Your task to perform on an android device: open app "Life360: Find Family & Friends" (install if not already installed) Image 0: 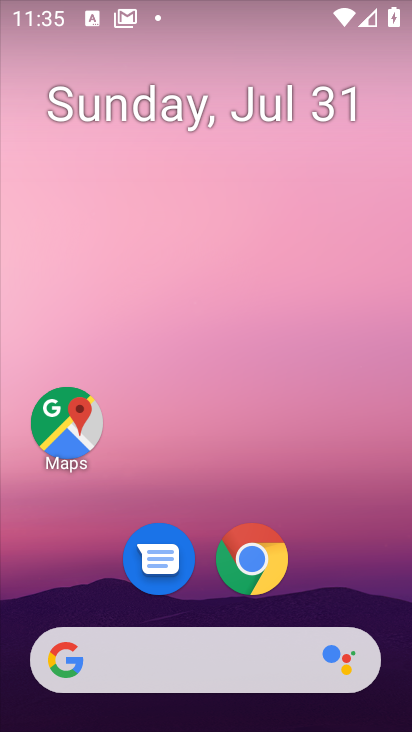
Step 0: drag from (67, 575) to (210, 4)
Your task to perform on an android device: open app "Life360: Find Family & Friends" (install if not already installed) Image 1: 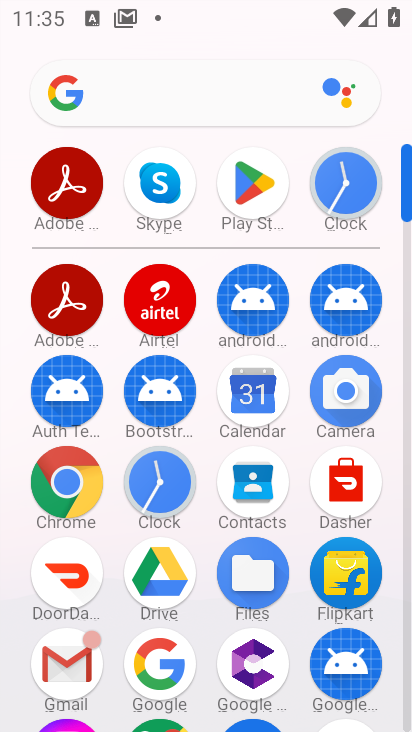
Step 1: click (253, 197)
Your task to perform on an android device: open app "Life360: Find Family & Friends" (install if not already installed) Image 2: 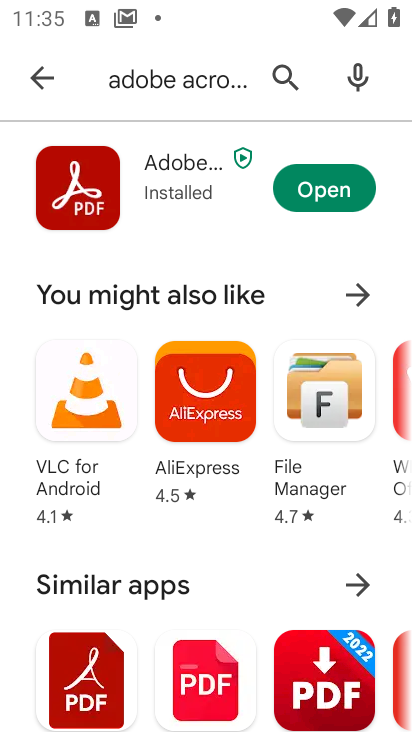
Step 2: click (270, 84)
Your task to perform on an android device: open app "Life360: Find Family & Friends" (install if not already installed) Image 3: 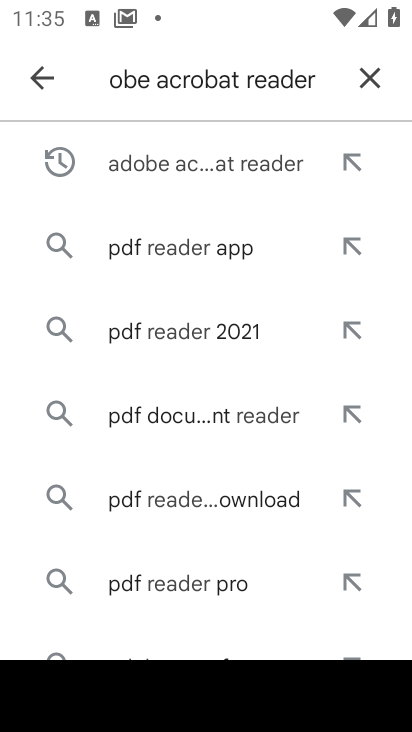
Step 3: click (364, 80)
Your task to perform on an android device: open app "Life360: Find Family & Friends" (install if not already installed) Image 4: 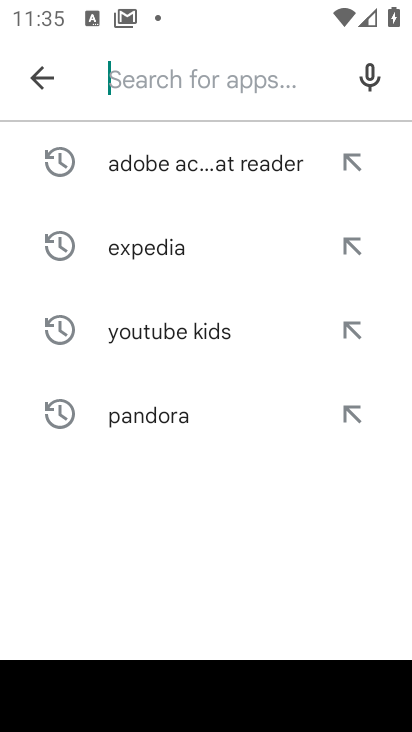
Step 4: click (153, 70)
Your task to perform on an android device: open app "Life360: Find Family & Friends" (install if not already installed) Image 5: 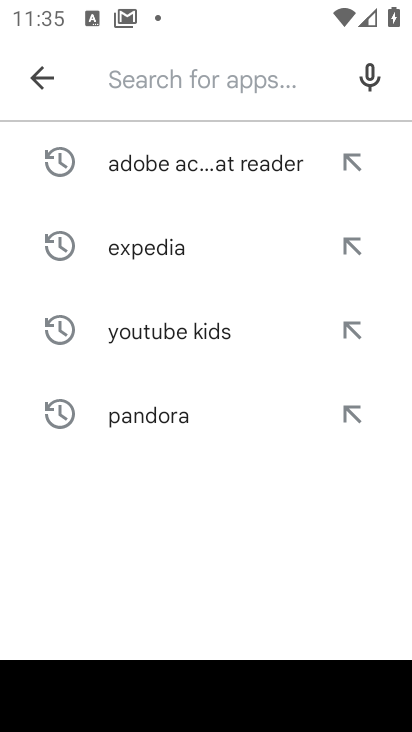
Step 5: type "life 360"
Your task to perform on an android device: open app "Life360: Find Family & Friends" (install if not already installed) Image 6: 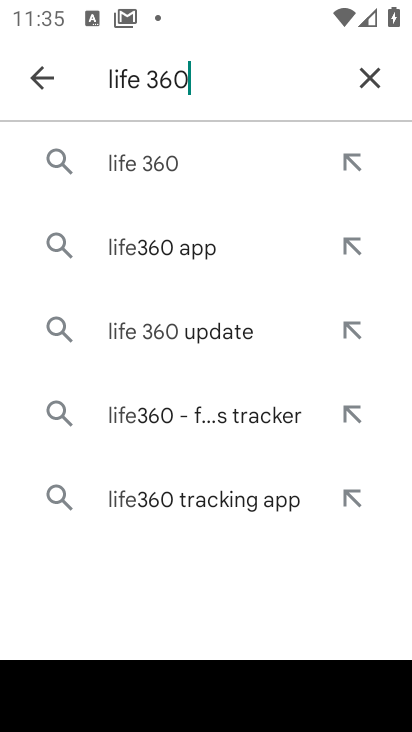
Step 6: click (137, 164)
Your task to perform on an android device: open app "Life360: Find Family & Friends" (install if not already installed) Image 7: 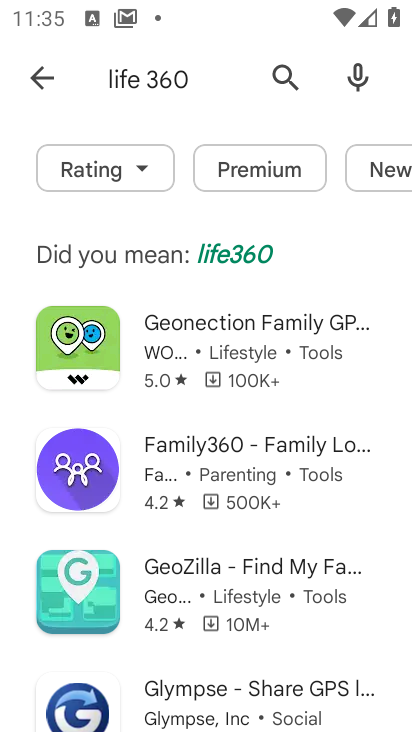
Step 7: task complete